Your task to perform on an android device: see sites visited before in the chrome app Image 0: 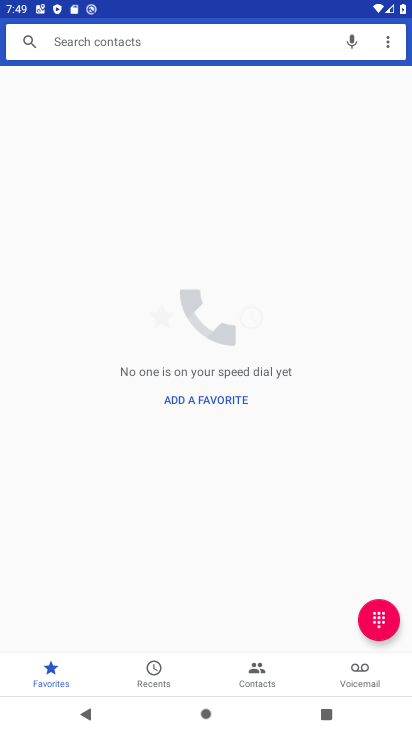
Step 0: press home button
Your task to perform on an android device: see sites visited before in the chrome app Image 1: 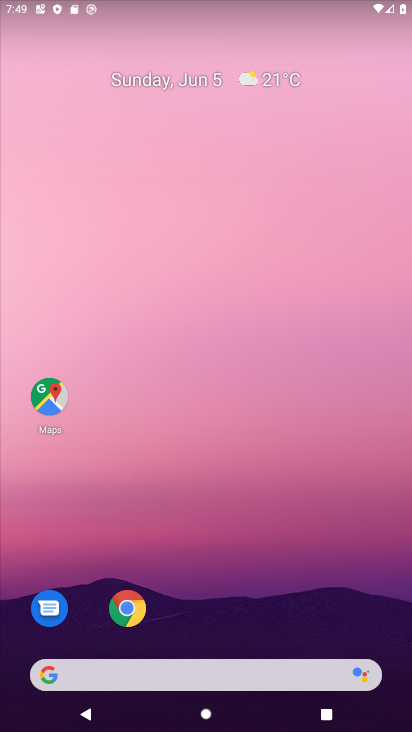
Step 1: drag from (233, 611) to (261, 151)
Your task to perform on an android device: see sites visited before in the chrome app Image 2: 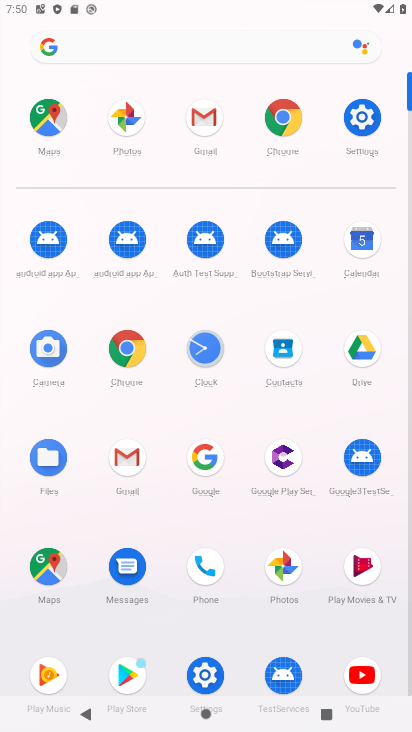
Step 2: click (132, 356)
Your task to perform on an android device: see sites visited before in the chrome app Image 3: 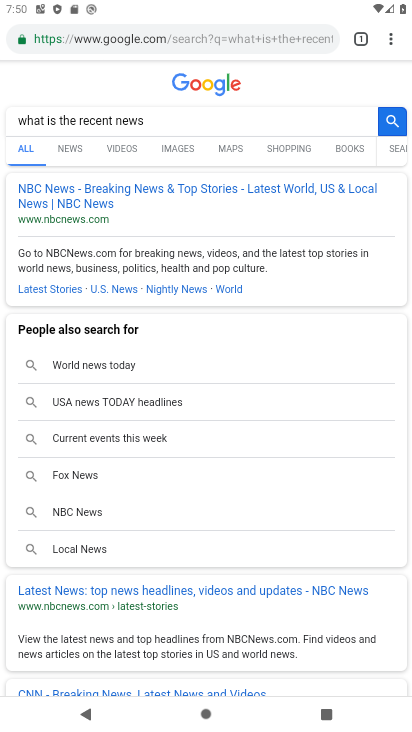
Step 3: drag from (400, 42) to (260, 477)
Your task to perform on an android device: see sites visited before in the chrome app Image 4: 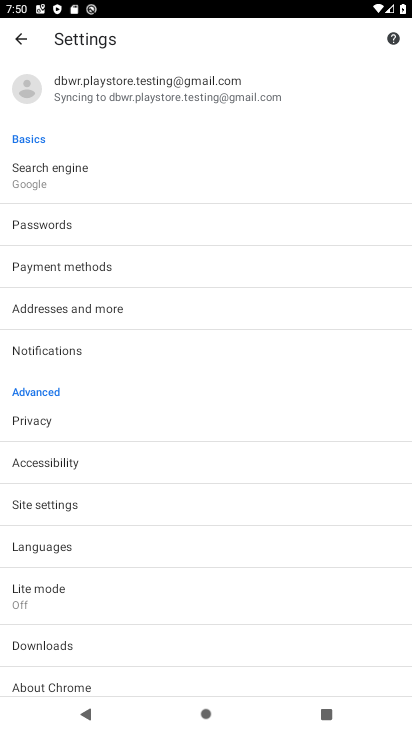
Step 4: click (73, 515)
Your task to perform on an android device: see sites visited before in the chrome app Image 5: 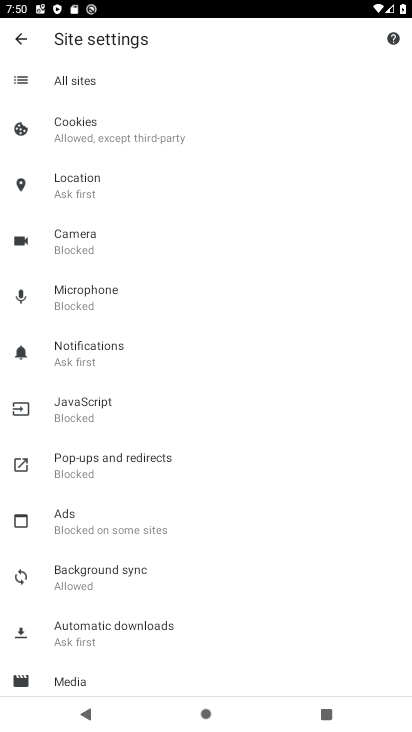
Step 5: click (115, 82)
Your task to perform on an android device: see sites visited before in the chrome app Image 6: 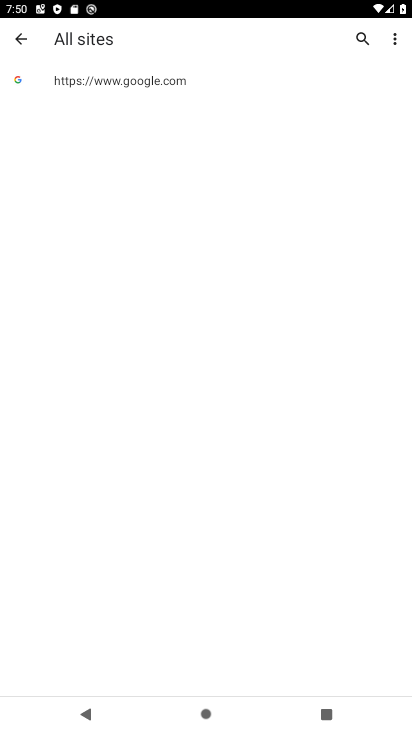
Step 6: task complete